Your task to perform on an android device: Add razer deathadder to the cart on bestbuy.com Image 0: 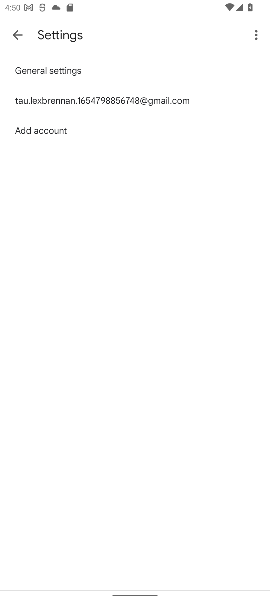
Step 0: press home button
Your task to perform on an android device: Add razer deathadder to the cart on bestbuy.com Image 1: 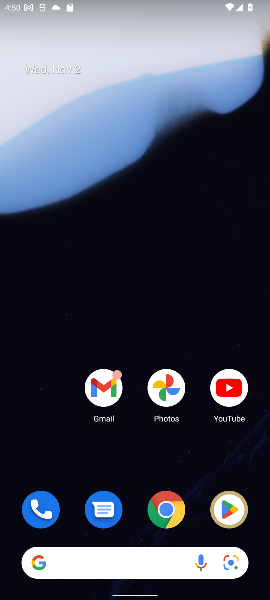
Step 1: click (123, 565)
Your task to perform on an android device: Add razer deathadder to the cart on bestbuy.com Image 2: 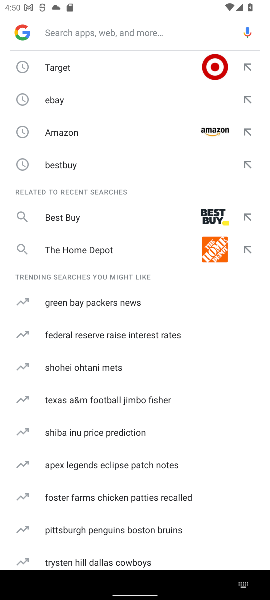
Step 2: click (64, 217)
Your task to perform on an android device: Add razer deathadder to the cart on bestbuy.com Image 3: 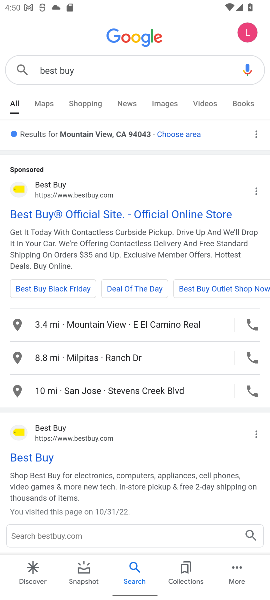
Step 3: click (30, 454)
Your task to perform on an android device: Add razer deathadder to the cart on bestbuy.com Image 4: 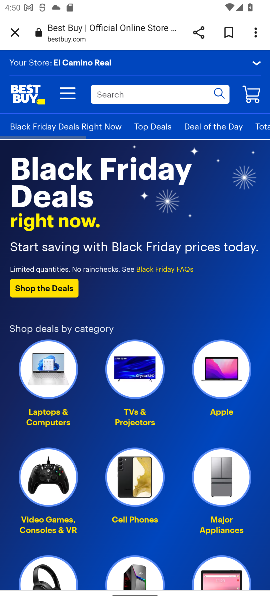
Step 4: click (160, 89)
Your task to perform on an android device: Add razer deathadder to the cart on bestbuy.com Image 5: 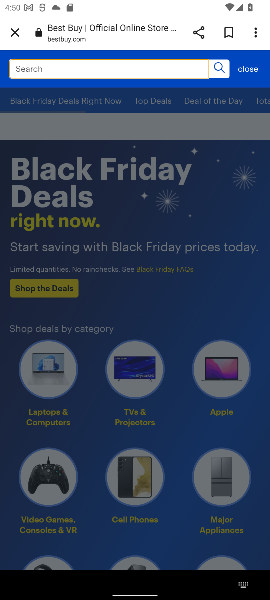
Step 5: type "razer deathadder"
Your task to perform on an android device: Add razer deathadder to the cart on bestbuy.com Image 6: 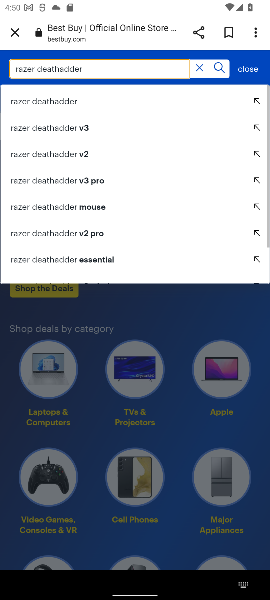
Step 6: click (44, 99)
Your task to perform on an android device: Add razer deathadder to the cart on bestbuy.com Image 7: 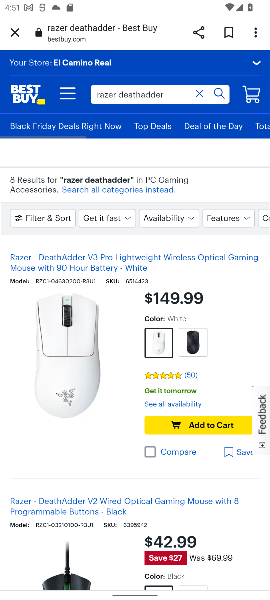
Step 7: click (208, 422)
Your task to perform on an android device: Add razer deathadder to the cart on bestbuy.com Image 8: 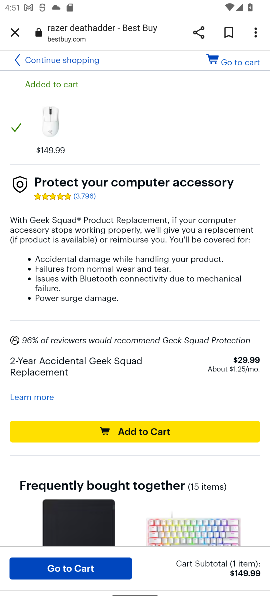
Step 8: click (132, 429)
Your task to perform on an android device: Add razer deathadder to the cart on bestbuy.com Image 9: 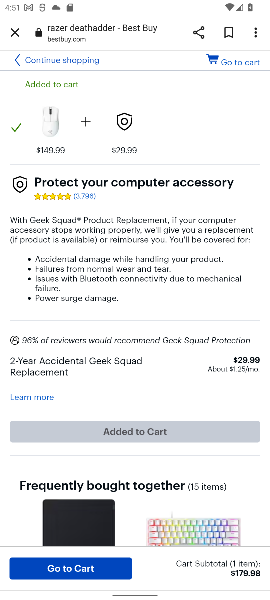
Step 9: task complete